Your task to perform on an android device: turn on sleep mode Image 0: 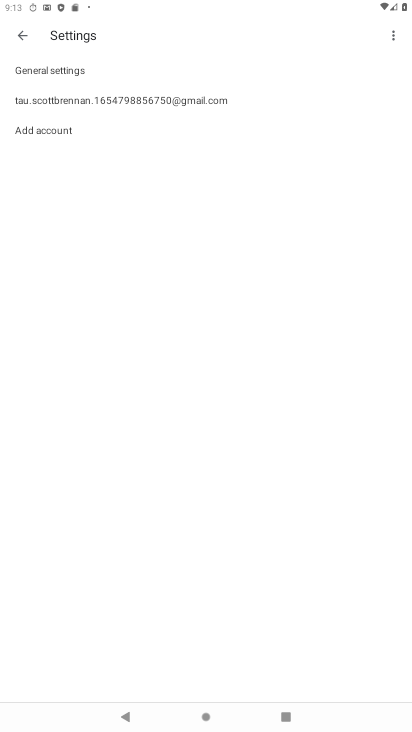
Step 0: press back button
Your task to perform on an android device: turn on sleep mode Image 1: 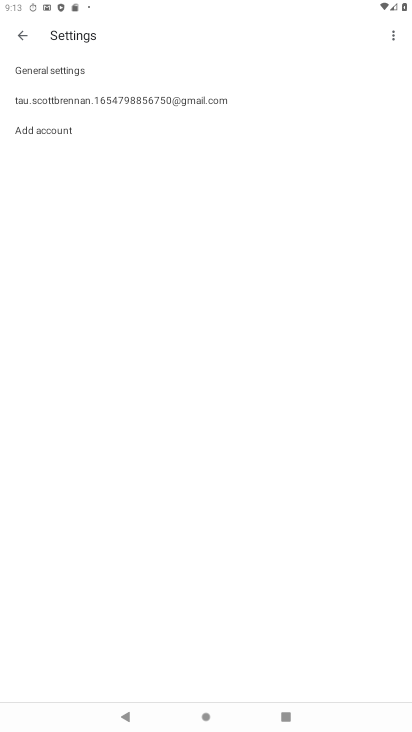
Step 1: click (21, 33)
Your task to perform on an android device: turn on sleep mode Image 2: 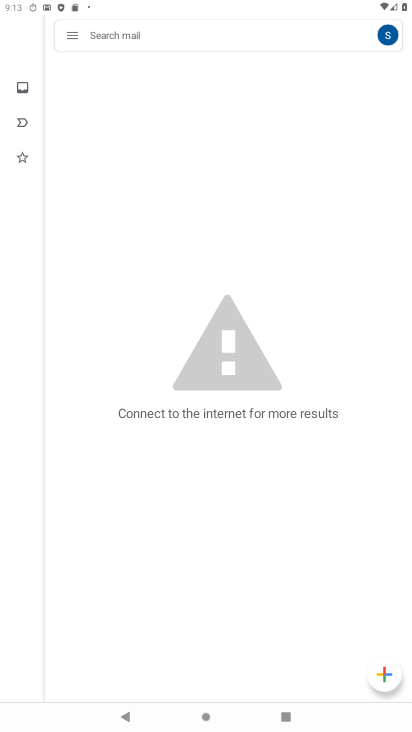
Step 2: press back button
Your task to perform on an android device: turn on sleep mode Image 3: 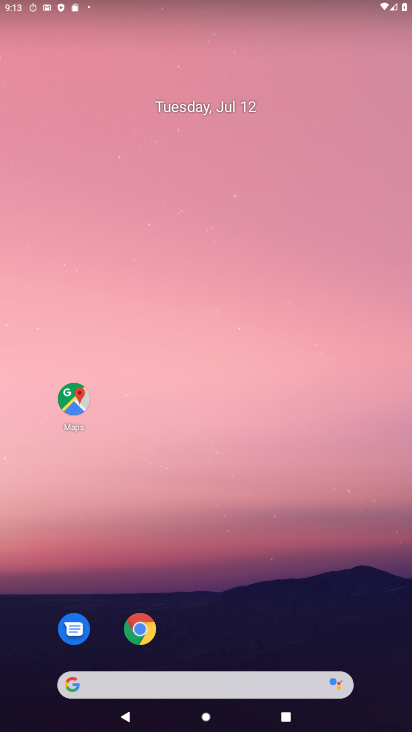
Step 3: drag from (253, 669) to (224, 130)
Your task to perform on an android device: turn on sleep mode Image 4: 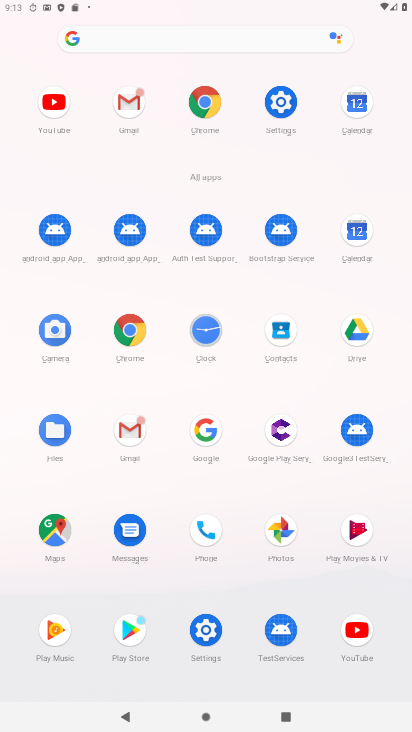
Step 4: click (281, 101)
Your task to perform on an android device: turn on sleep mode Image 5: 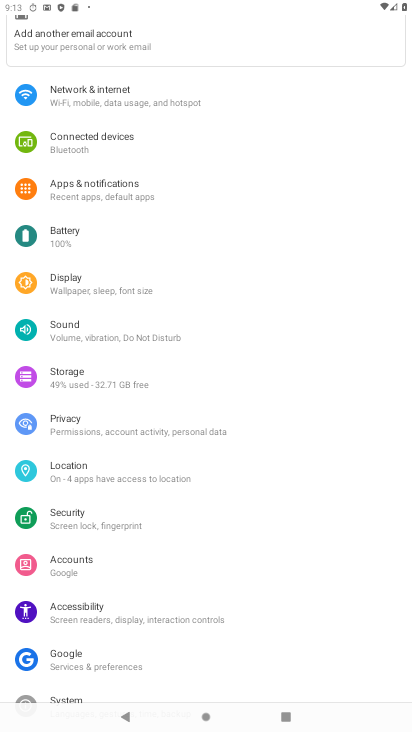
Step 5: click (64, 281)
Your task to perform on an android device: turn on sleep mode Image 6: 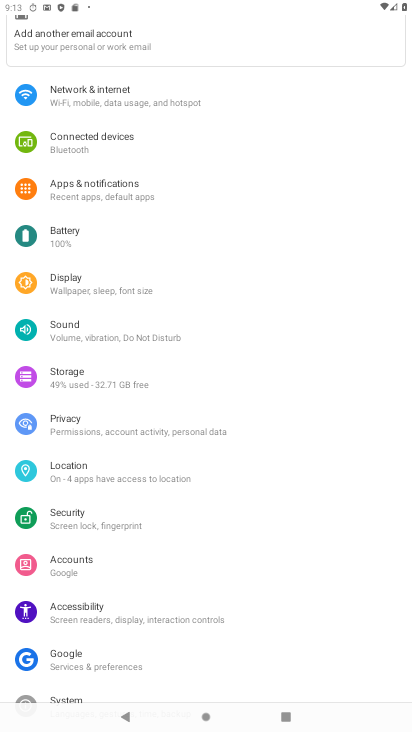
Step 6: click (64, 281)
Your task to perform on an android device: turn on sleep mode Image 7: 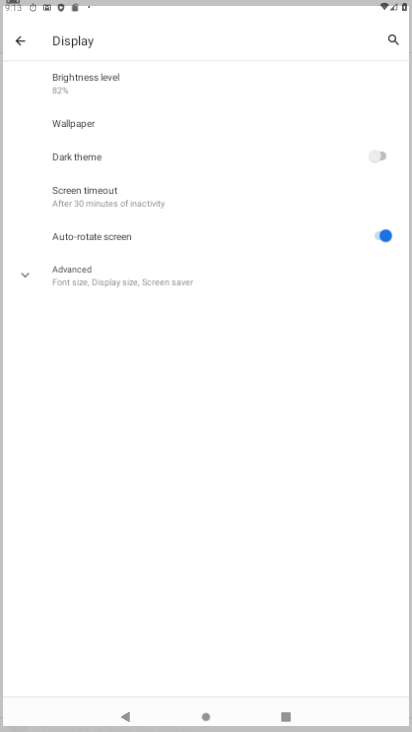
Step 7: click (66, 281)
Your task to perform on an android device: turn on sleep mode Image 8: 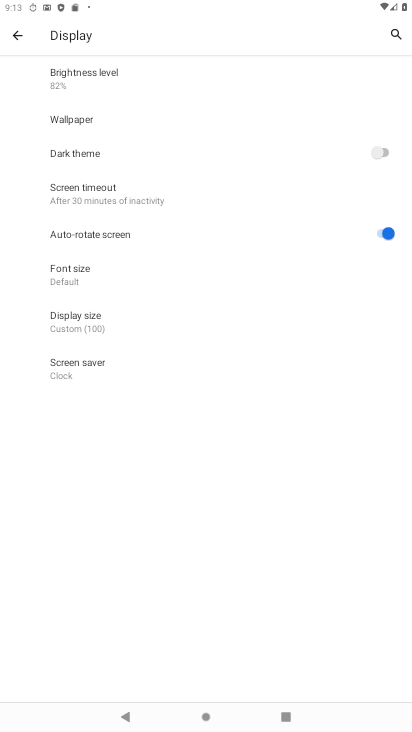
Step 8: click (60, 187)
Your task to perform on an android device: turn on sleep mode Image 9: 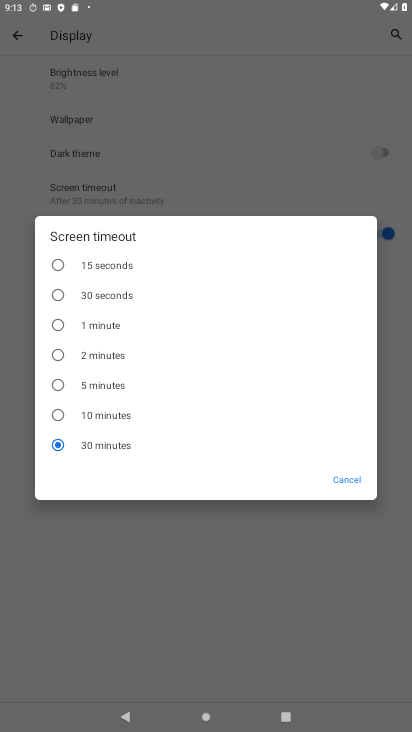
Step 9: task complete